Your task to perform on an android device: open chrome and create a bookmark for the current page Image 0: 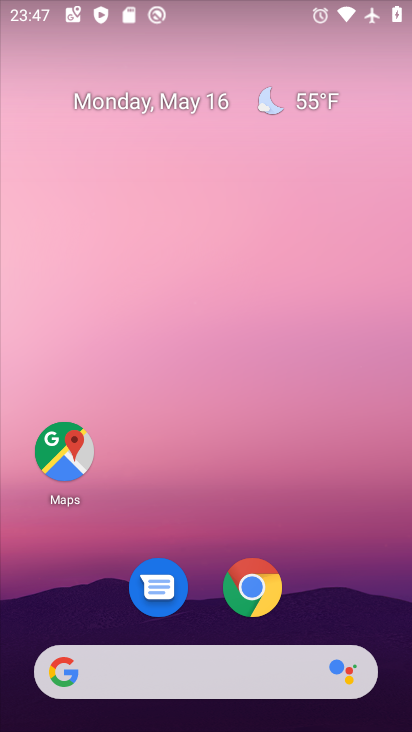
Step 0: drag from (324, 568) to (239, 5)
Your task to perform on an android device: open chrome and create a bookmark for the current page Image 1: 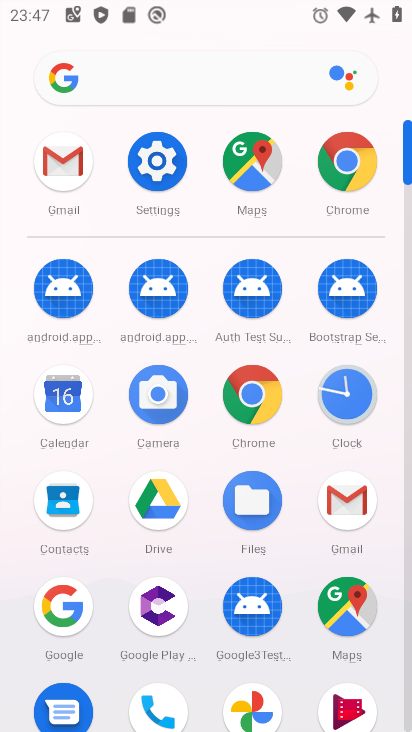
Step 1: click (246, 394)
Your task to perform on an android device: open chrome and create a bookmark for the current page Image 2: 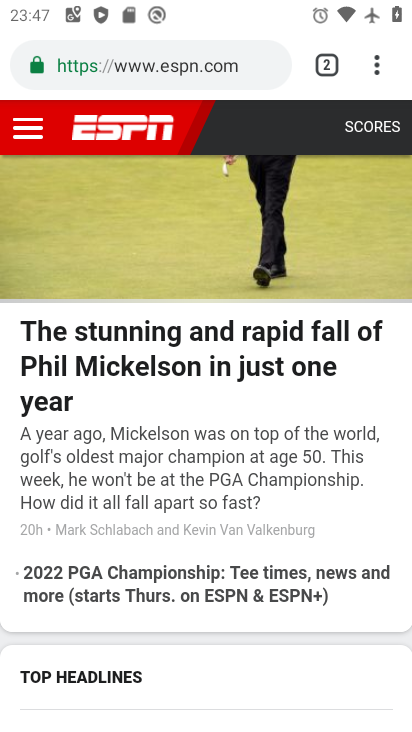
Step 2: task complete